Your task to perform on an android device: Go to network settings Image 0: 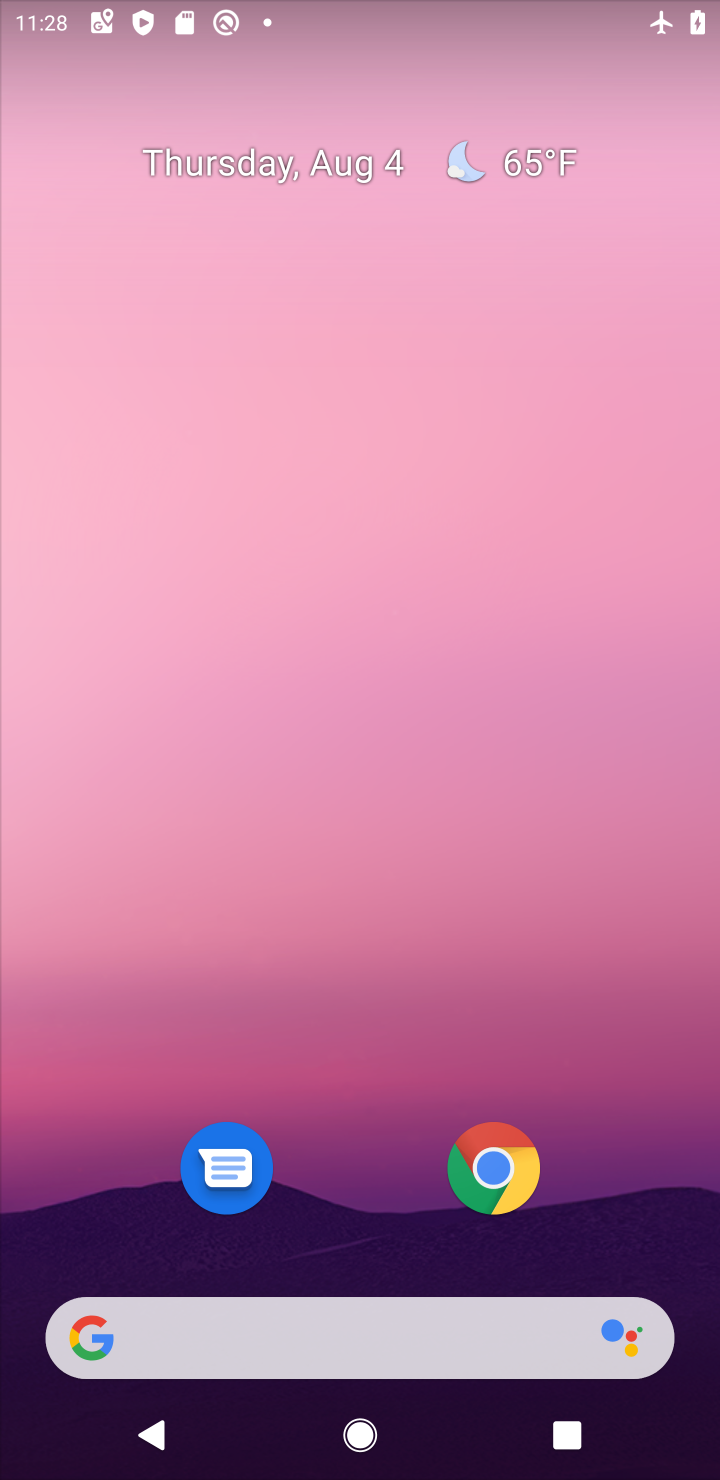
Step 0: drag from (340, 256) to (268, 96)
Your task to perform on an android device: Go to network settings Image 1: 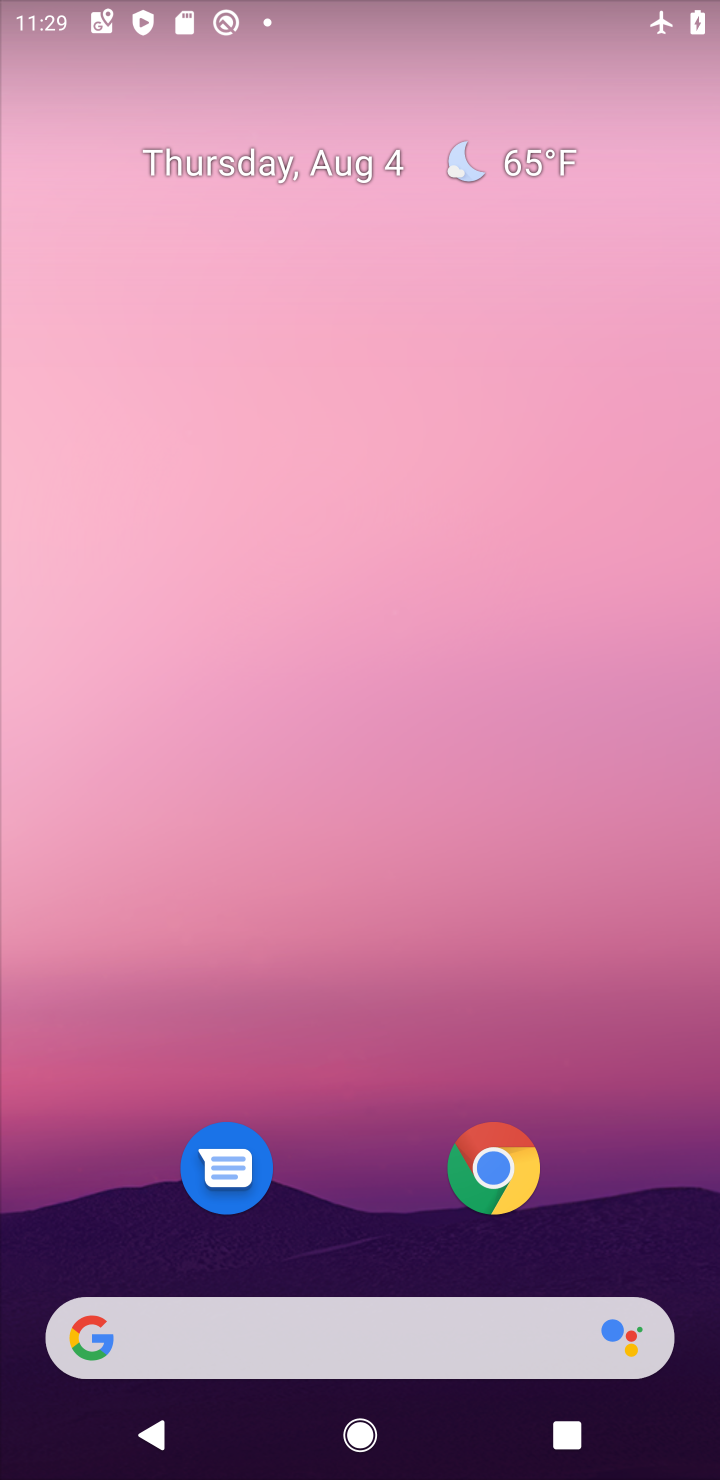
Step 1: drag from (655, 1254) to (446, 60)
Your task to perform on an android device: Go to network settings Image 2: 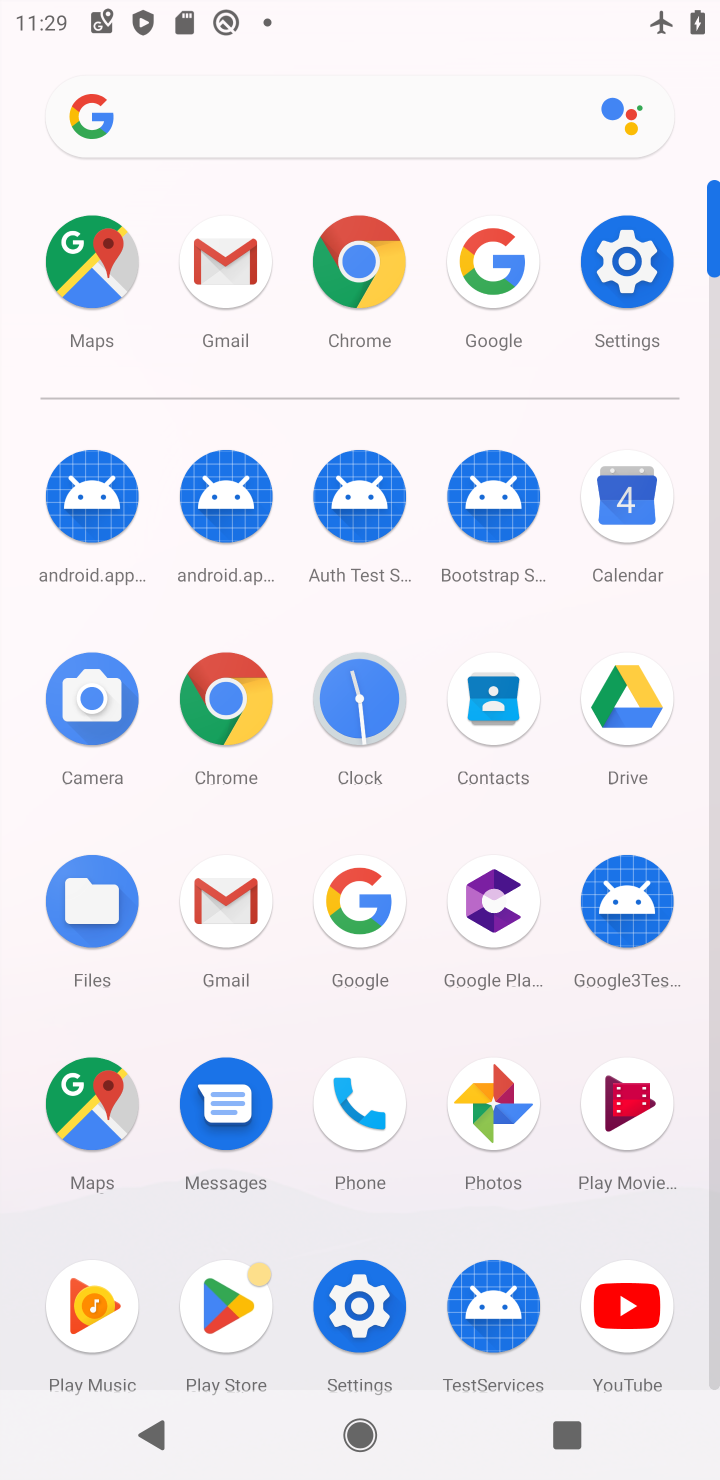
Step 2: click (358, 1305)
Your task to perform on an android device: Go to network settings Image 3: 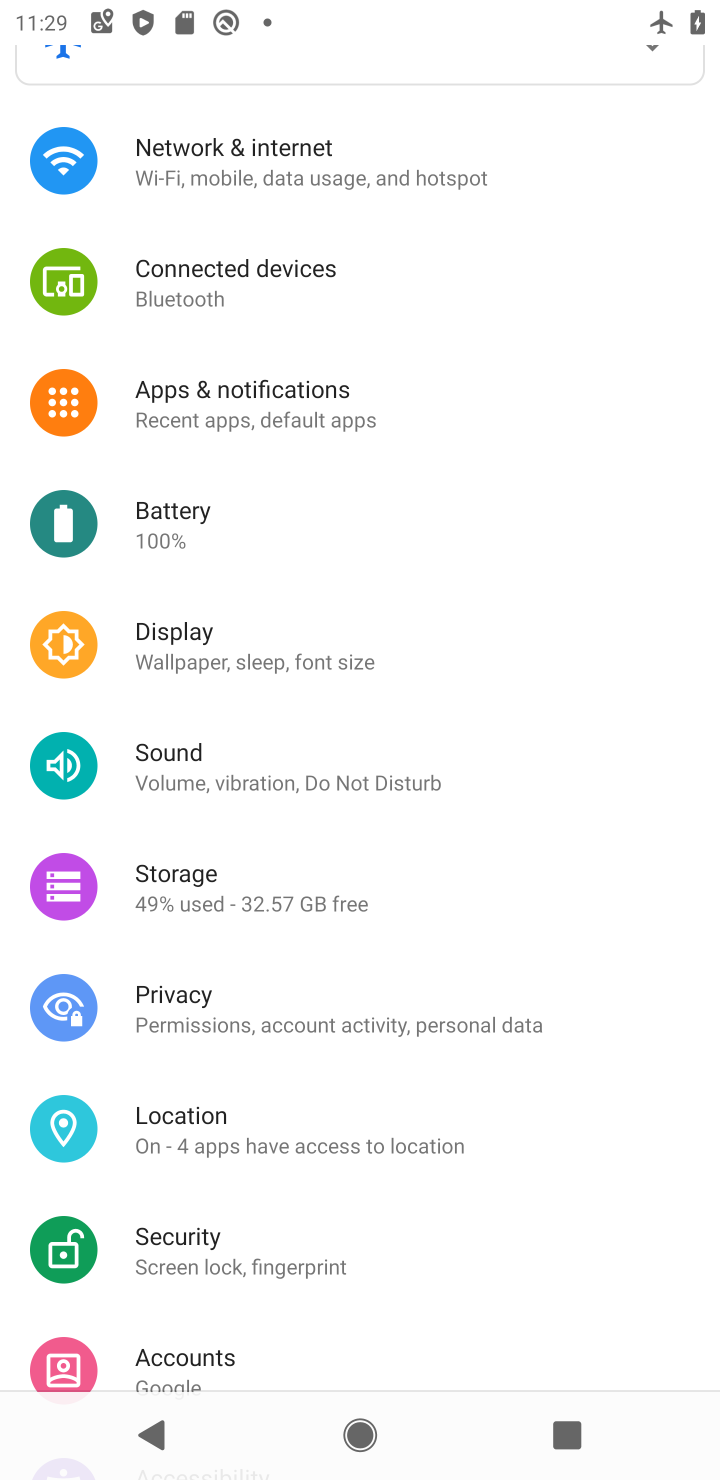
Step 3: drag from (272, 1237) to (412, 181)
Your task to perform on an android device: Go to network settings Image 4: 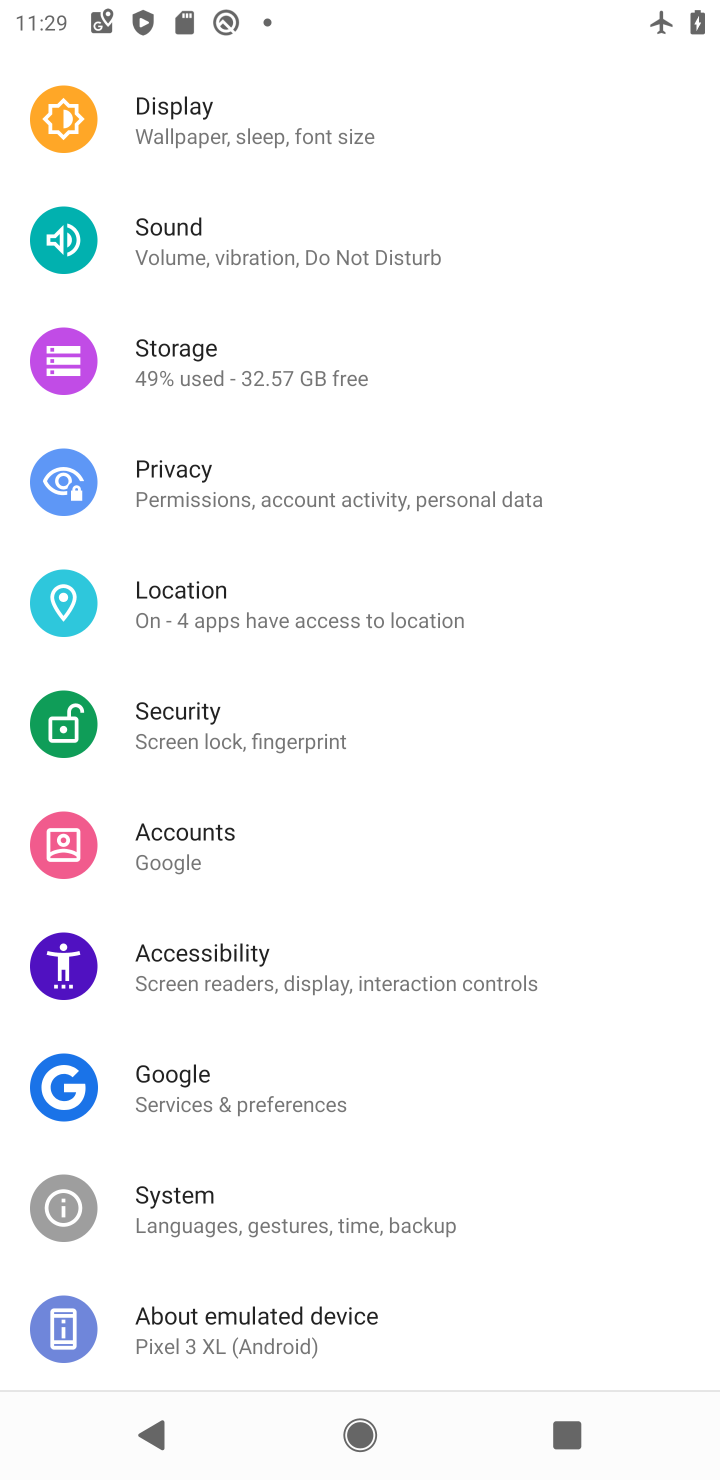
Step 4: drag from (320, 164) to (517, 1472)
Your task to perform on an android device: Go to network settings Image 5: 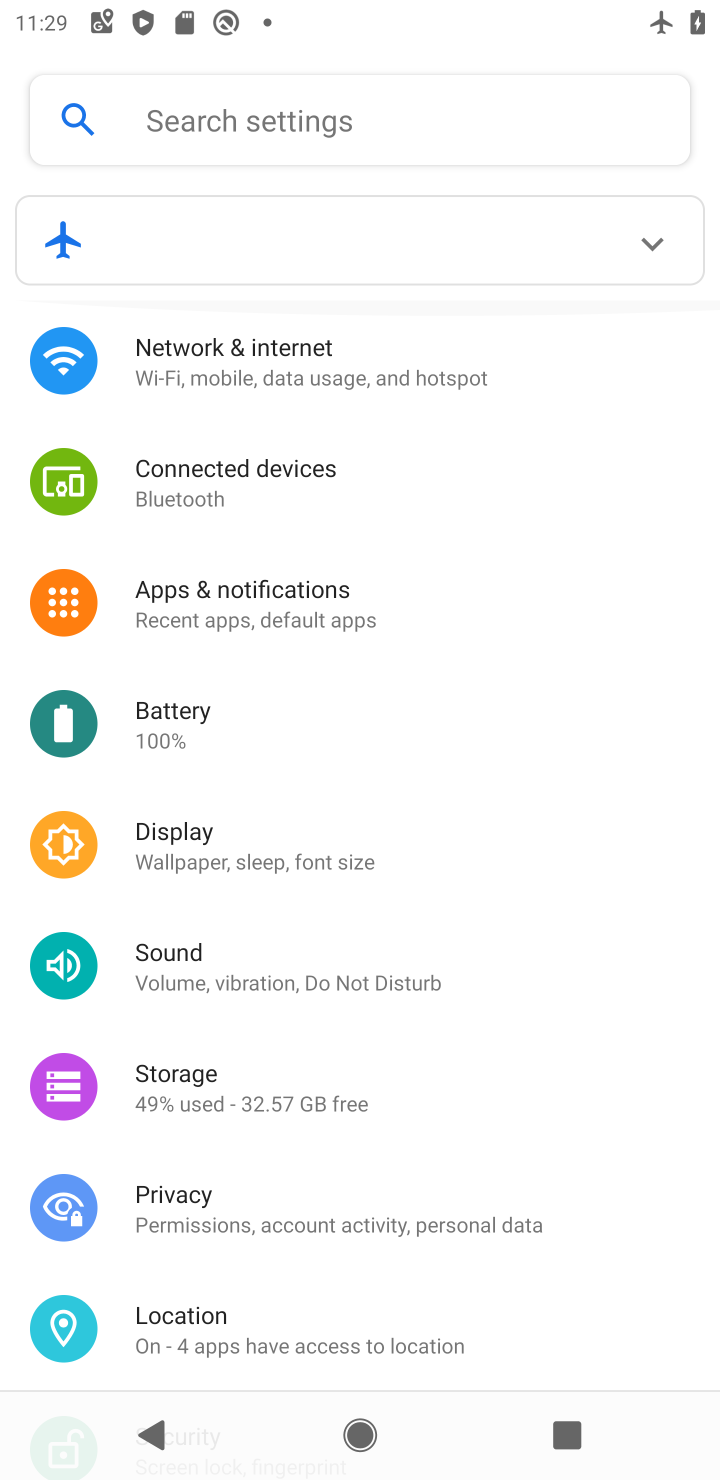
Step 5: click (233, 354)
Your task to perform on an android device: Go to network settings Image 6: 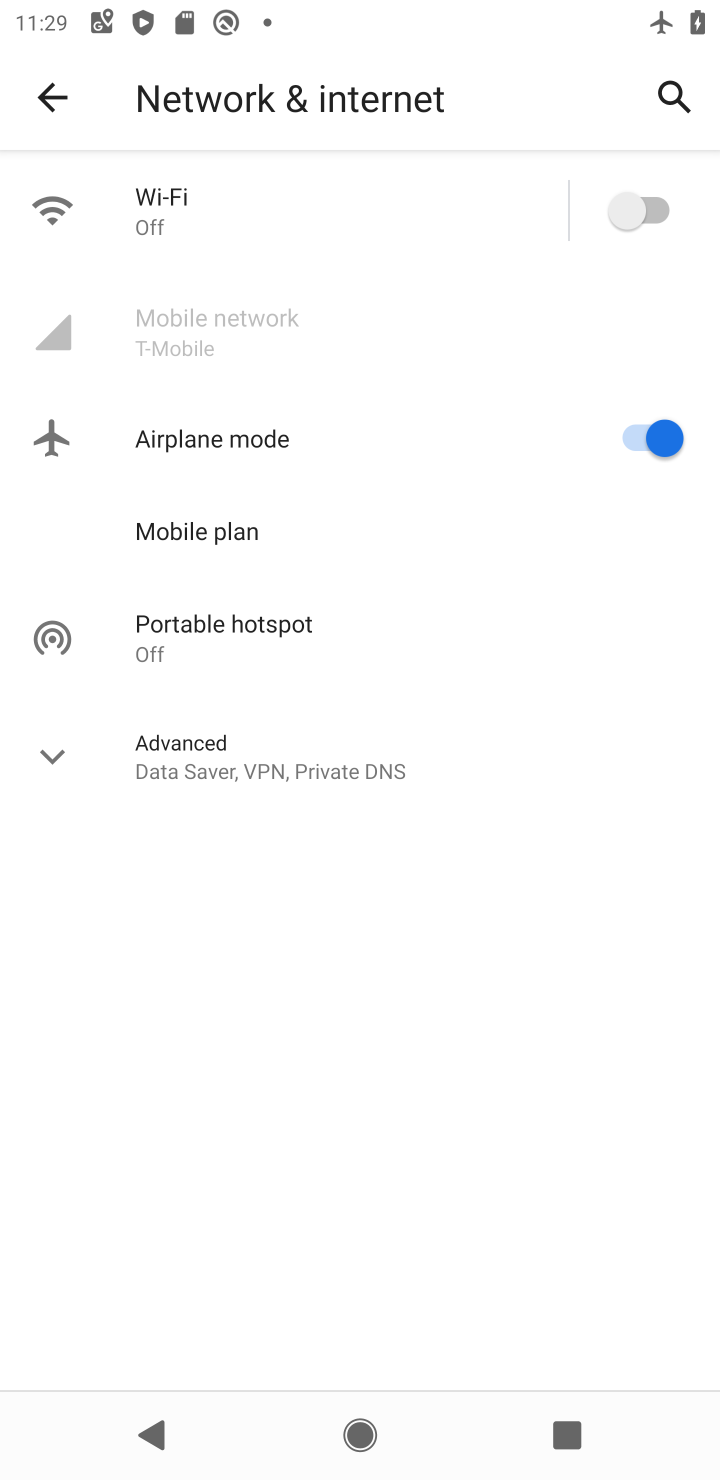
Step 6: task complete